Your task to perform on an android device: Go to display settings Image 0: 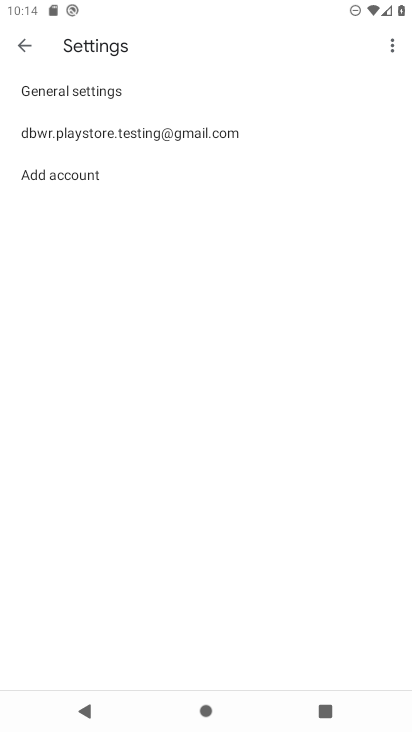
Step 0: press home button
Your task to perform on an android device: Go to display settings Image 1: 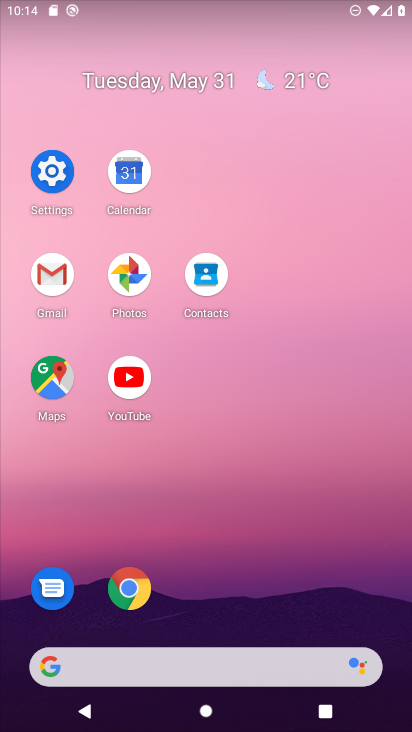
Step 1: click (45, 167)
Your task to perform on an android device: Go to display settings Image 2: 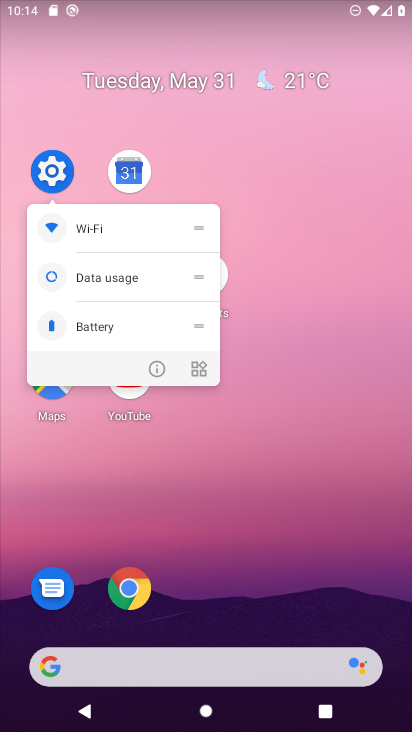
Step 2: click (37, 189)
Your task to perform on an android device: Go to display settings Image 3: 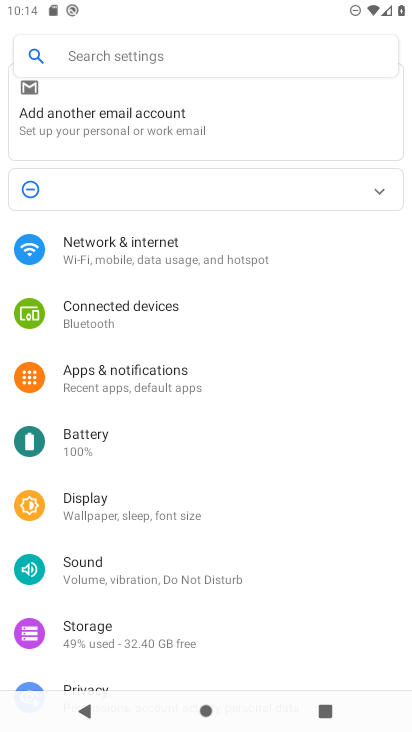
Step 3: click (117, 502)
Your task to perform on an android device: Go to display settings Image 4: 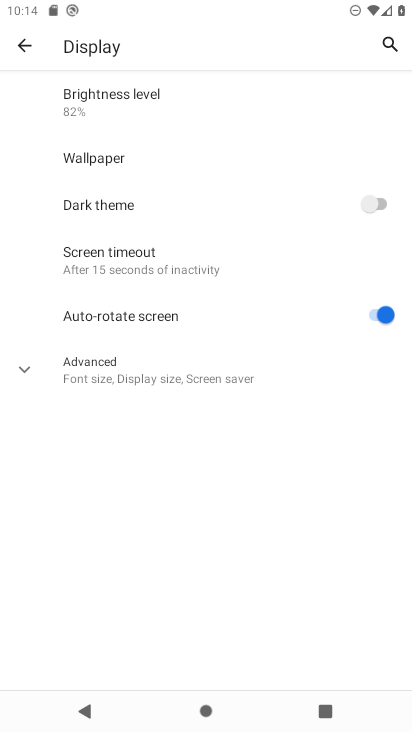
Step 4: task complete